Your task to perform on an android device: Turn on the flashlight Image 0: 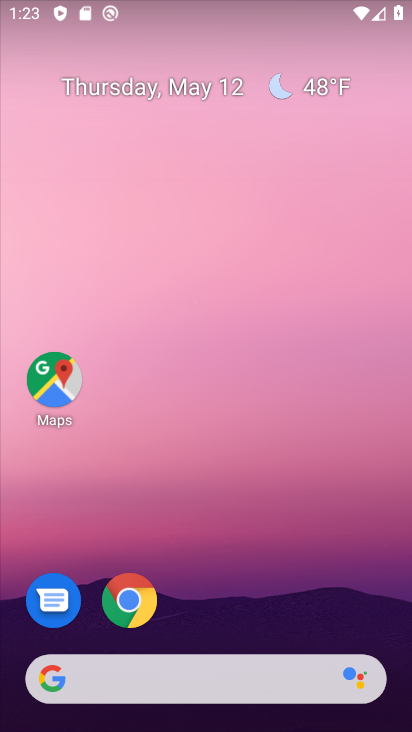
Step 0: drag from (366, 3) to (296, 588)
Your task to perform on an android device: Turn on the flashlight Image 1: 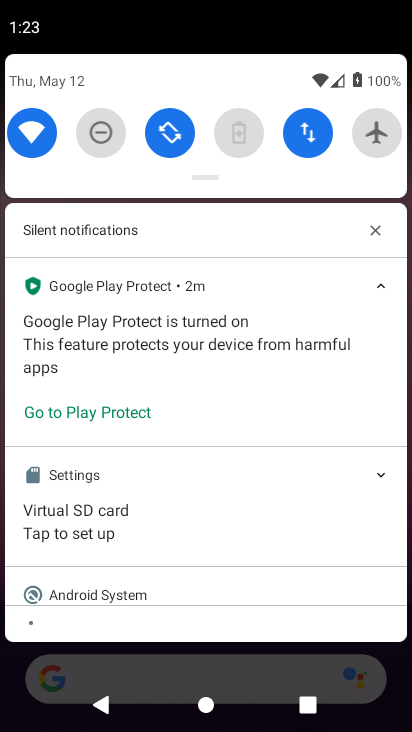
Step 1: task complete